Your task to perform on an android device: toggle data saver in the chrome app Image 0: 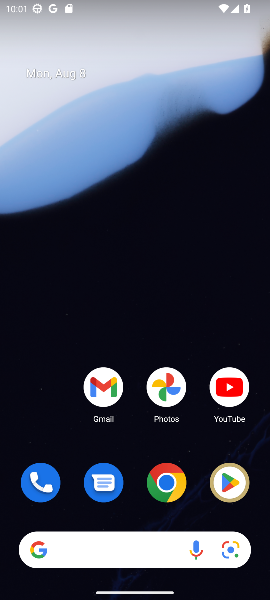
Step 0: click (167, 496)
Your task to perform on an android device: toggle data saver in the chrome app Image 1: 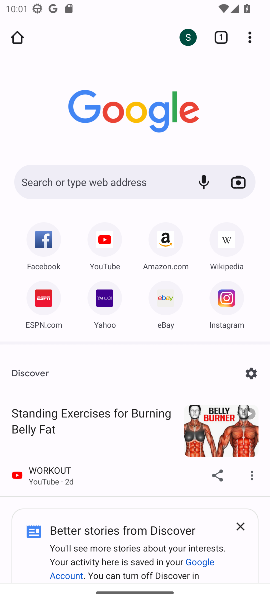
Step 1: click (250, 36)
Your task to perform on an android device: toggle data saver in the chrome app Image 2: 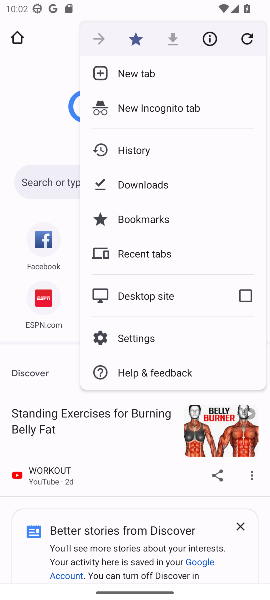
Step 2: click (149, 344)
Your task to perform on an android device: toggle data saver in the chrome app Image 3: 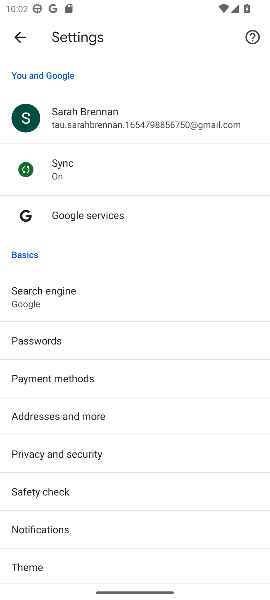
Step 3: task complete